Your task to perform on an android device: Open network settings Image 0: 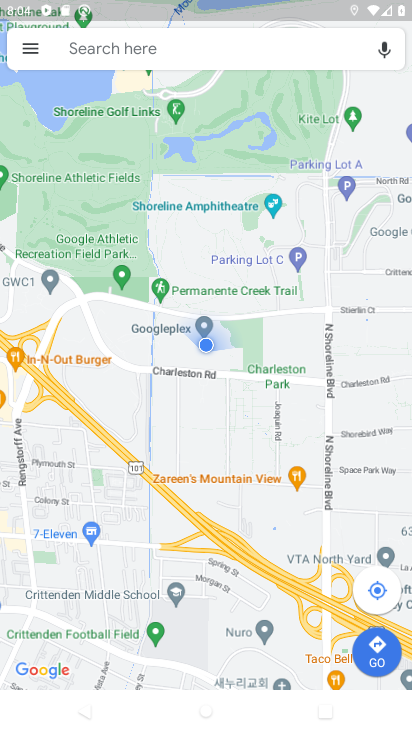
Step 0: press home button
Your task to perform on an android device: Open network settings Image 1: 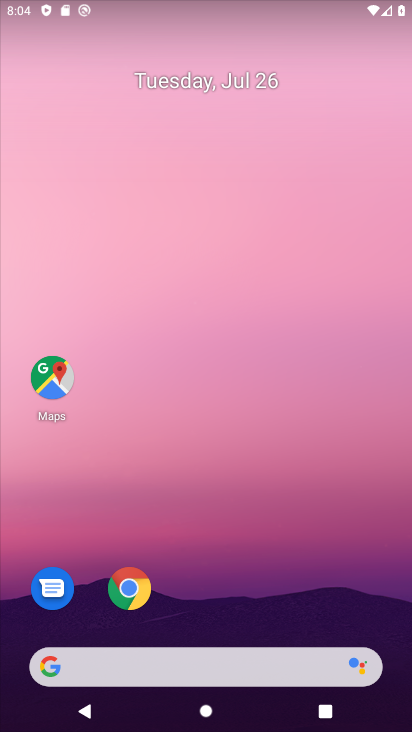
Step 1: drag from (224, 635) to (228, 37)
Your task to perform on an android device: Open network settings Image 2: 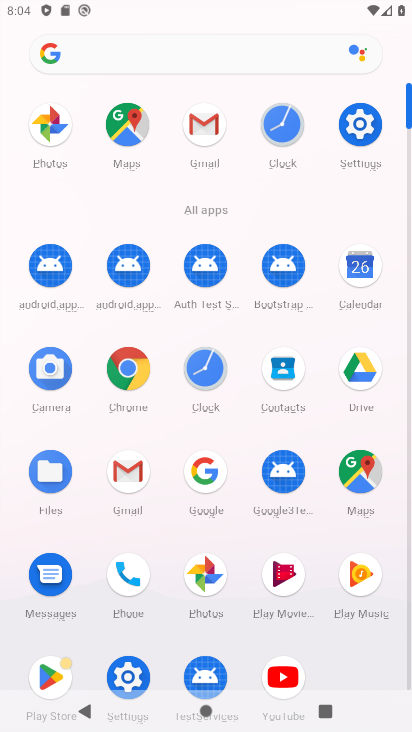
Step 2: click (371, 132)
Your task to perform on an android device: Open network settings Image 3: 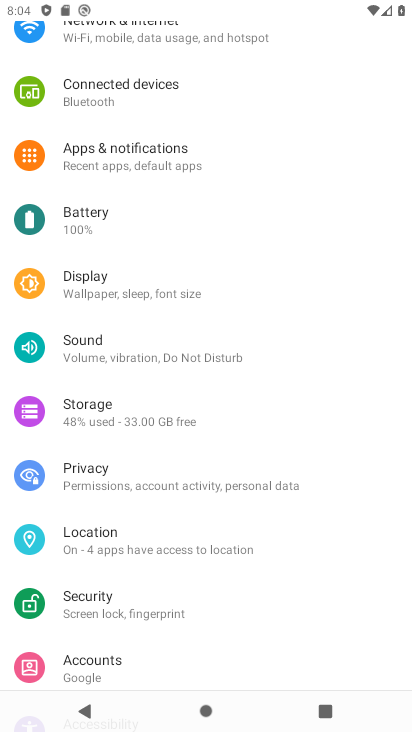
Step 3: drag from (225, 136) to (242, 419)
Your task to perform on an android device: Open network settings Image 4: 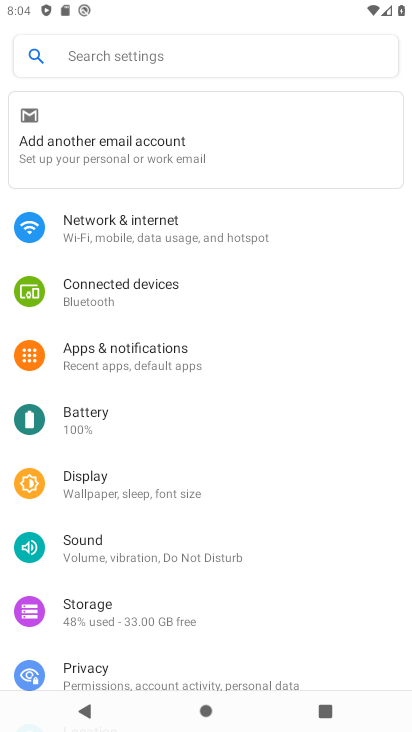
Step 4: click (126, 231)
Your task to perform on an android device: Open network settings Image 5: 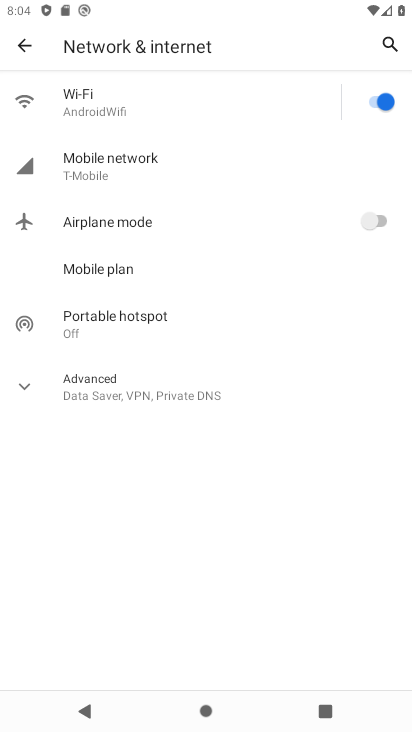
Step 5: click (109, 167)
Your task to perform on an android device: Open network settings Image 6: 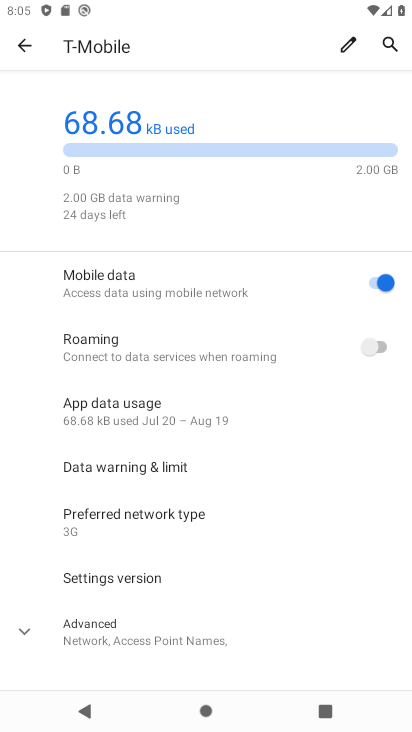
Step 6: drag from (175, 526) to (151, 234)
Your task to perform on an android device: Open network settings Image 7: 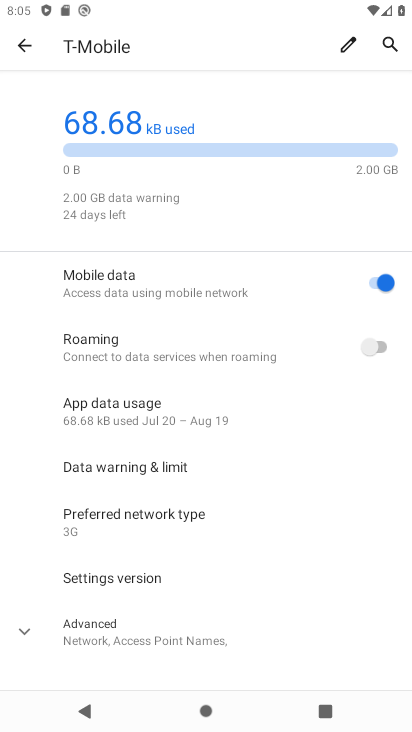
Step 7: click (24, 644)
Your task to perform on an android device: Open network settings Image 8: 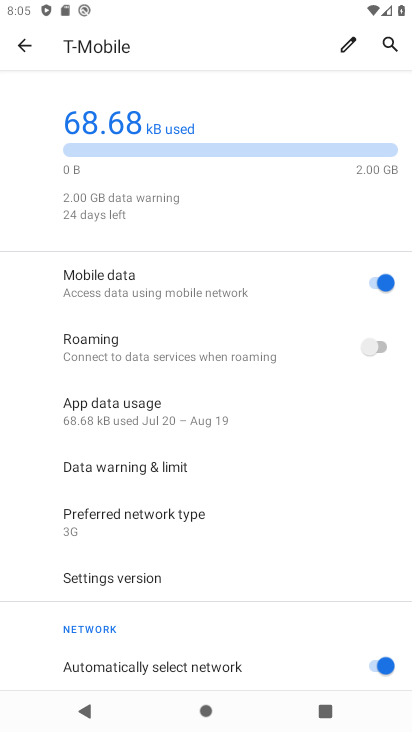
Step 8: click (170, 189)
Your task to perform on an android device: Open network settings Image 9: 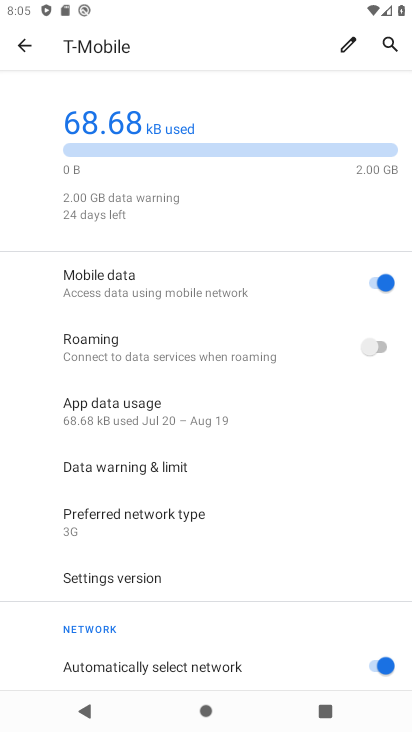
Step 9: task complete